Your task to perform on an android device: Go to accessibility settings Image 0: 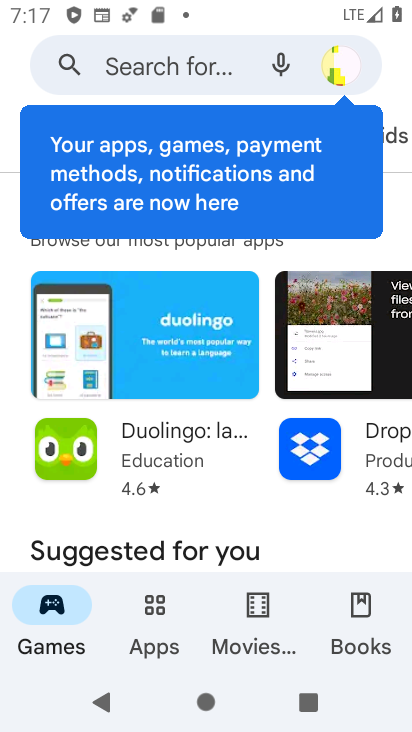
Step 0: press home button
Your task to perform on an android device: Go to accessibility settings Image 1: 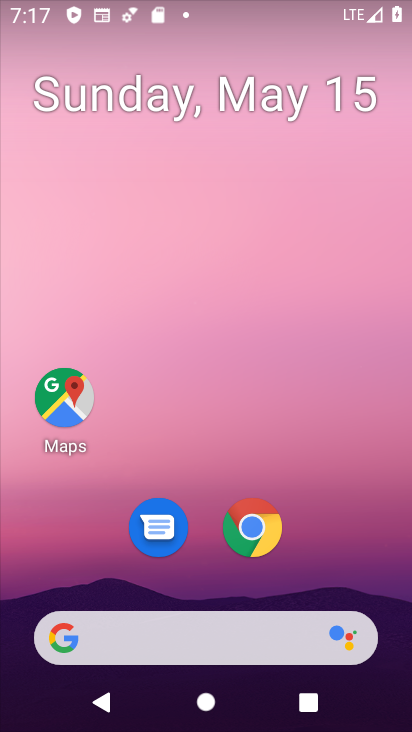
Step 1: drag from (373, 520) to (387, 0)
Your task to perform on an android device: Go to accessibility settings Image 2: 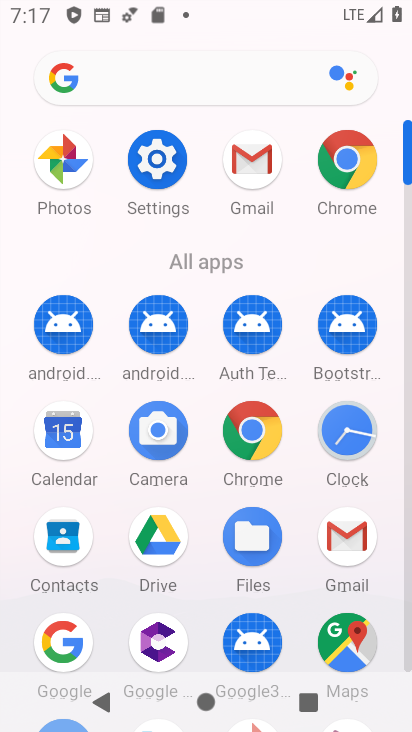
Step 2: click (166, 186)
Your task to perform on an android device: Go to accessibility settings Image 3: 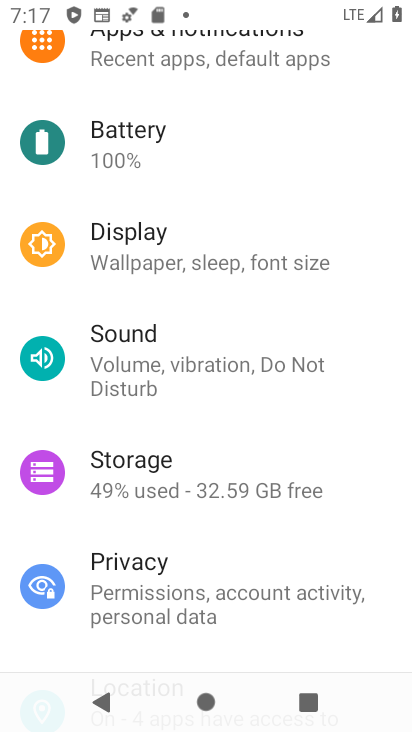
Step 3: drag from (221, 281) to (229, 667)
Your task to perform on an android device: Go to accessibility settings Image 4: 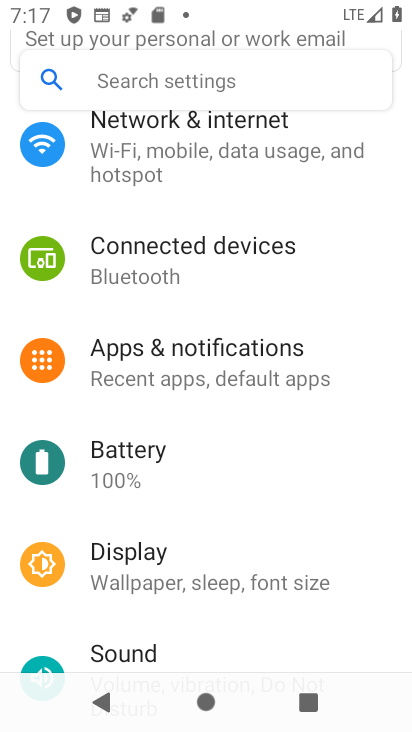
Step 4: drag from (247, 238) to (258, 617)
Your task to perform on an android device: Go to accessibility settings Image 5: 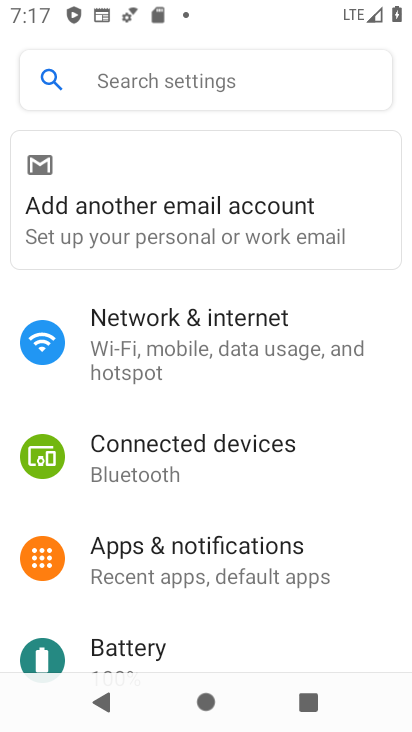
Step 5: drag from (178, 596) to (136, 259)
Your task to perform on an android device: Go to accessibility settings Image 6: 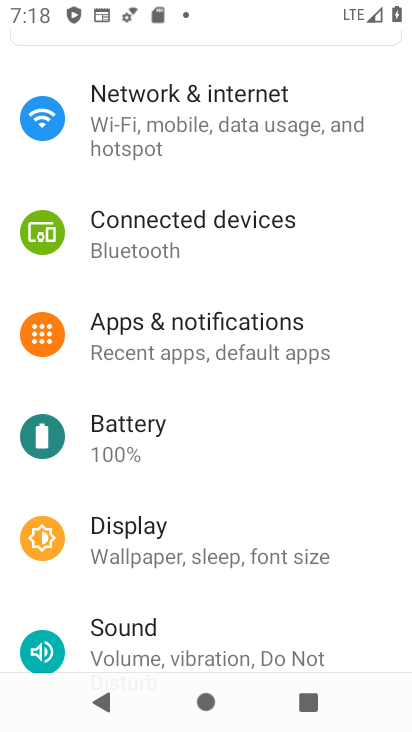
Step 6: drag from (206, 602) to (197, 264)
Your task to perform on an android device: Go to accessibility settings Image 7: 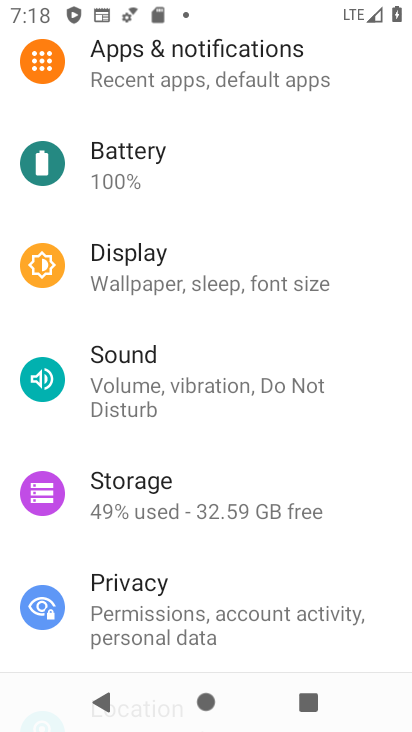
Step 7: drag from (264, 548) to (232, 209)
Your task to perform on an android device: Go to accessibility settings Image 8: 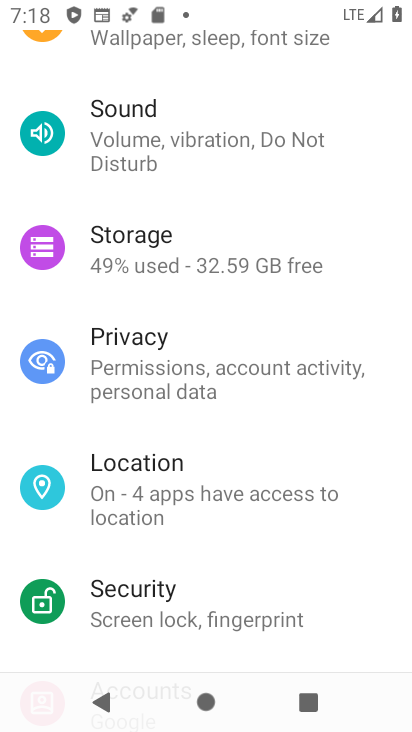
Step 8: drag from (232, 589) to (258, 157)
Your task to perform on an android device: Go to accessibility settings Image 9: 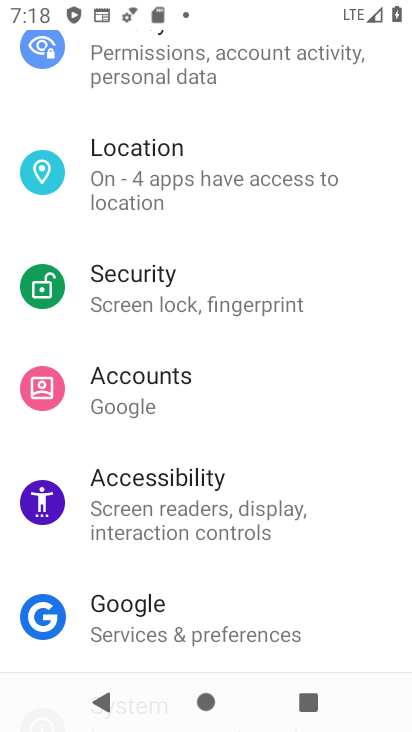
Step 9: click (202, 517)
Your task to perform on an android device: Go to accessibility settings Image 10: 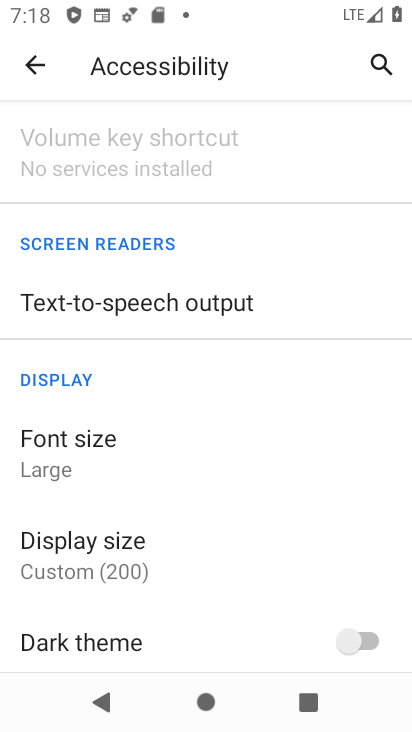
Step 10: task complete